Your task to perform on an android device: turn on javascript in the chrome app Image 0: 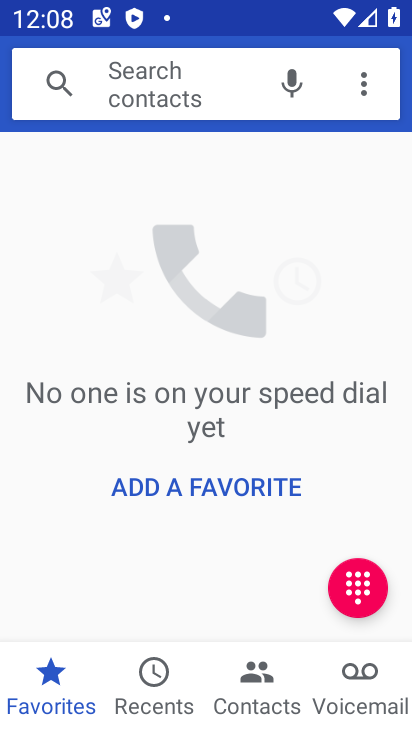
Step 0: press home button
Your task to perform on an android device: turn on javascript in the chrome app Image 1: 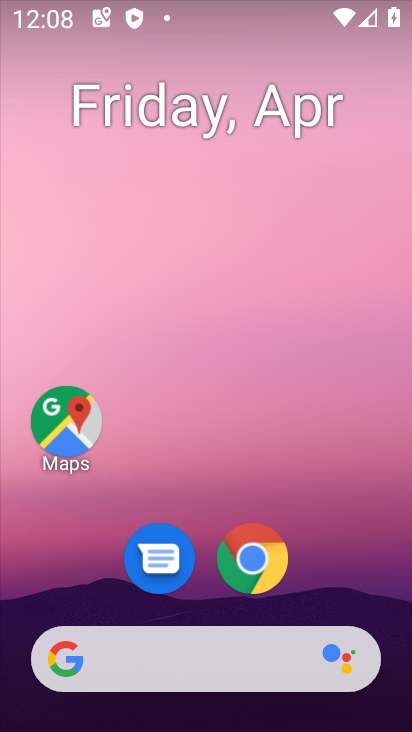
Step 1: drag from (389, 598) to (217, 68)
Your task to perform on an android device: turn on javascript in the chrome app Image 2: 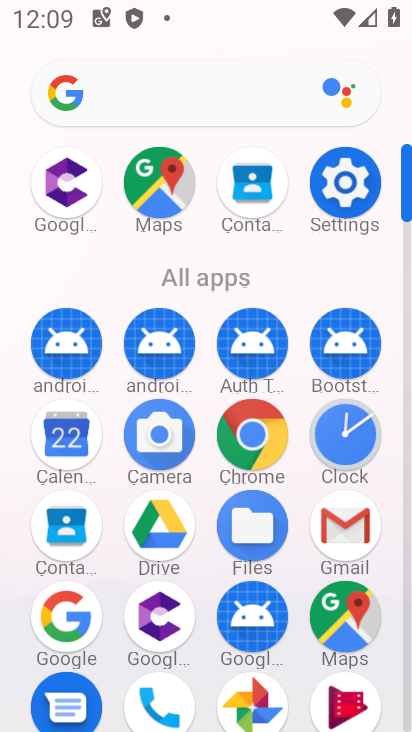
Step 2: click (250, 423)
Your task to perform on an android device: turn on javascript in the chrome app Image 3: 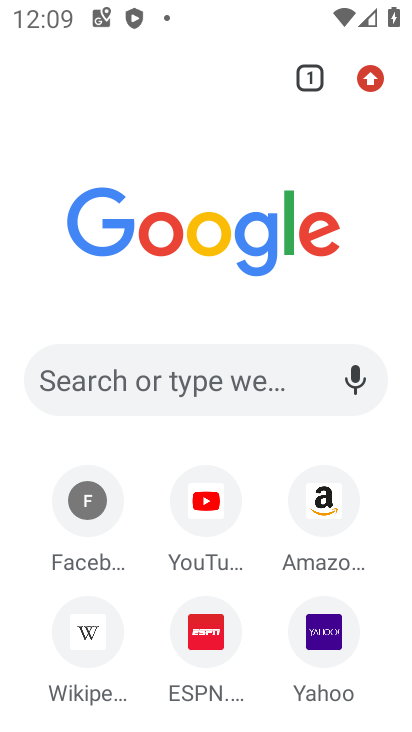
Step 3: click (376, 75)
Your task to perform on an android device: turn on javascript in the chrome app Image 4: 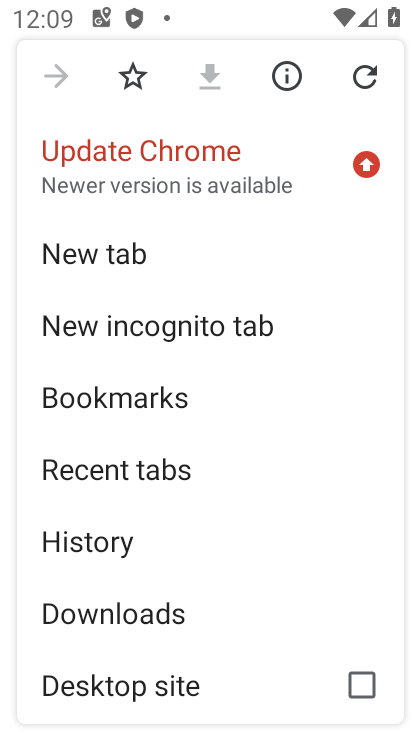
Step 4: drag from (203, 586) to (207, 451)
Your task to perform on an android device: turn on javascript in the chrome app Image 5: 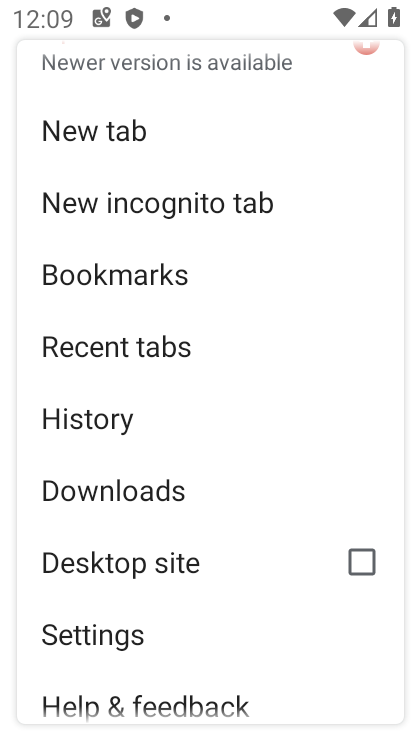
Step 5: click (151, 637)
Your task to perform on an android device: turn on javascript in the chrome app Image 6: 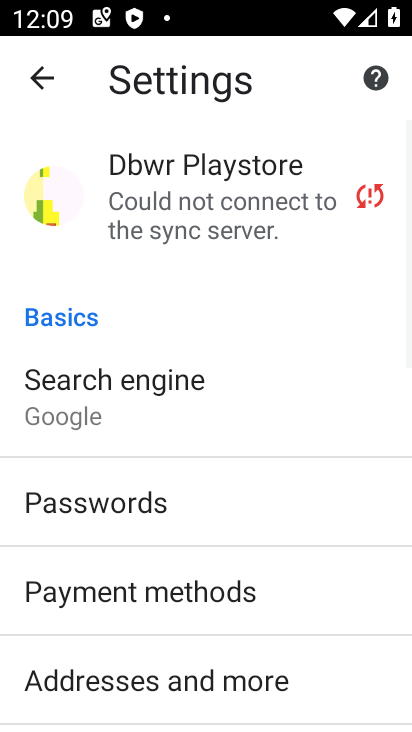
Step 6: drag from (179, 534) to (198, 340)
Your task to perform on an android device: turn on javascript in the chrome app Image 7: 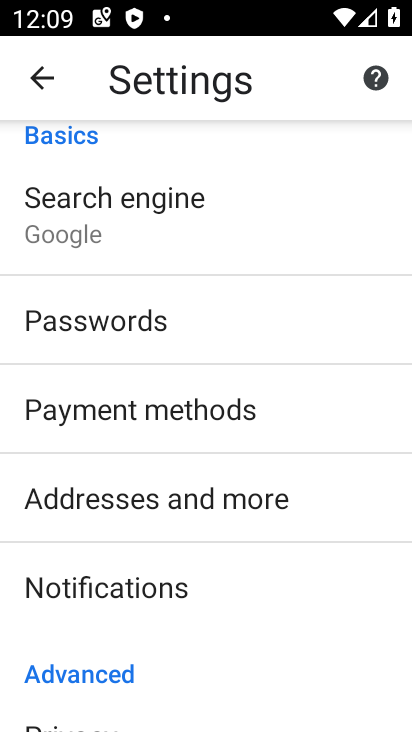
Step 7: drag from (172, 574) to (194, 230)
Your task to perform on an android device: turn on javascript in the chrome app Image 8: 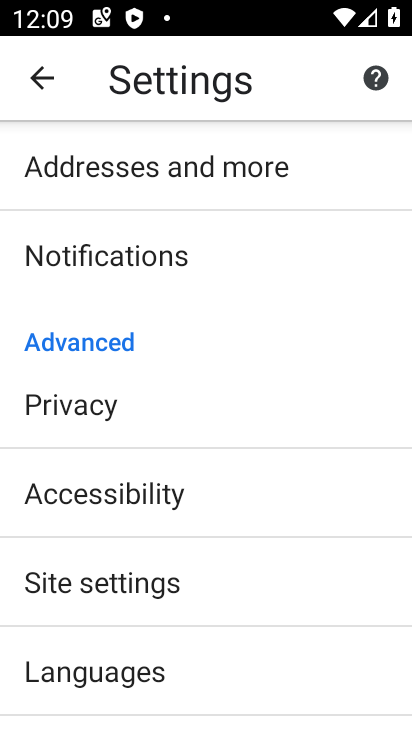
Step 8: click (192, 588)
Your task to perform on an android device: turn on javascript in the chrome app Image 9: 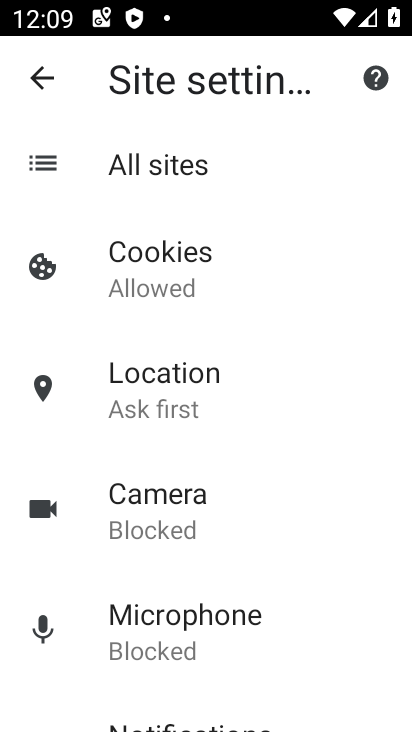
Step 9: drag from (209, 516) to (229, 254)
Your task to perform on an android device: turn on javascript in the chrome app Image 10: 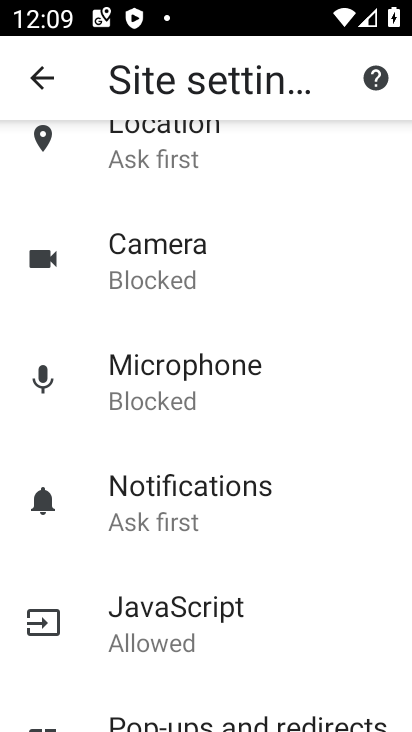
Step 10: click (154, 609)
Your task to perform on an android device: turn on javascript in the chrome app Image 11: 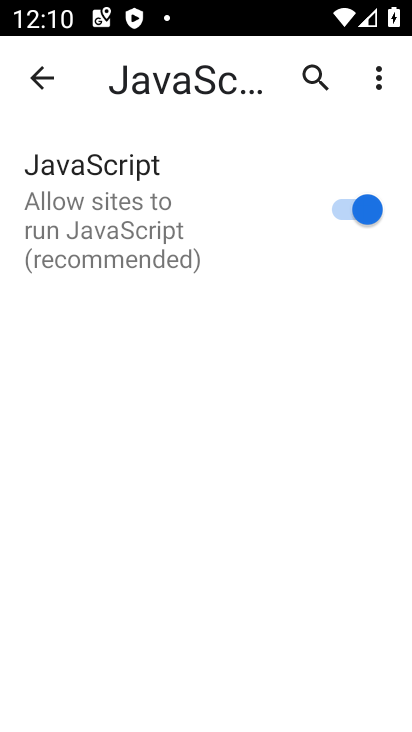
Step 11: task complete